Your task to perform on an android device: turn pop-ups off in chrome Image 0: 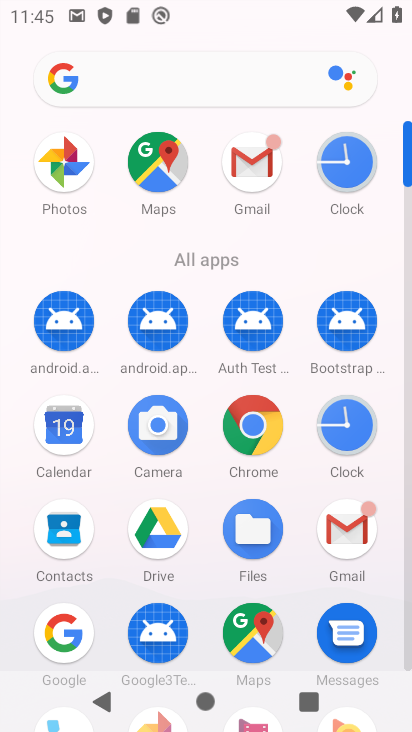
Step 0: click (238, 434)
Your task to perform on an android device: turn pop-ups off in chrome Image 1: 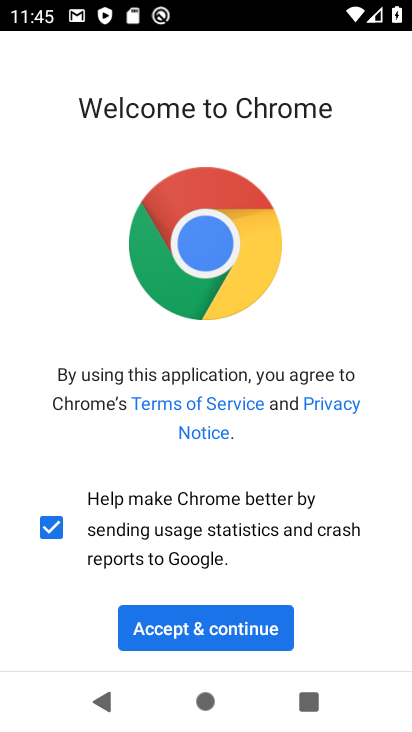
Step 1: click (226, 627)
Your task to perform on an android device: turn pop-ups off in chrome Image 2: 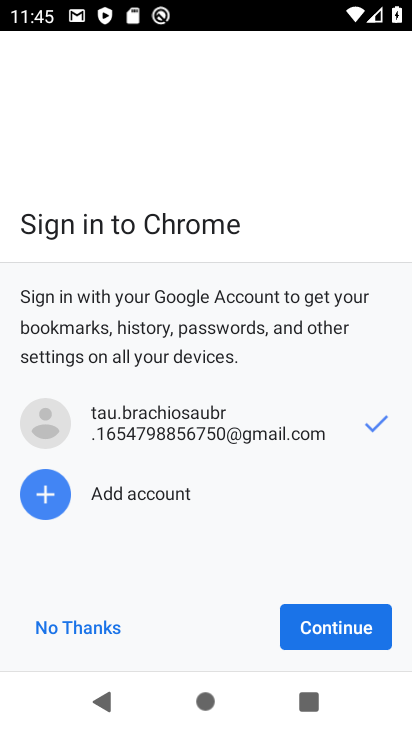
Step 2: click (329, 620)
Your task to perform on an android device: turn pop-ups off in chrome Image 3: 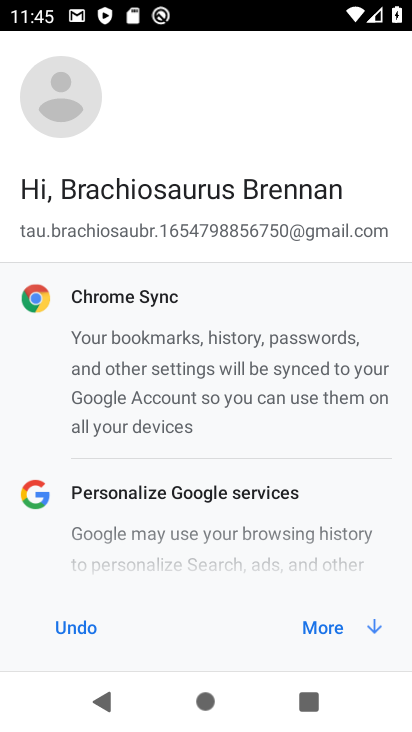
Step 3: click (328, 620)
Your task to perform on an android device: turn pop-ups off in chrome Image 4: 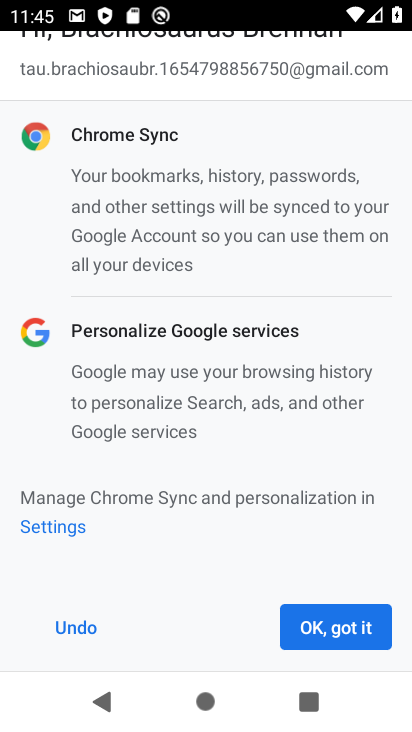
Step 4: click (328, 619)
Your task to perform on an android device: turn pop-ups off in chrome Image 5: 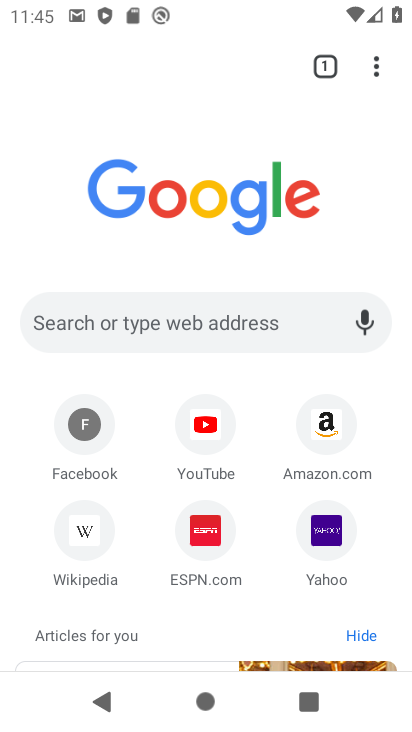
Step 5: drag from (376, 66) to (202, 557)
Your task to perform on an android device: turn pop-ups off in chrome Image 6: 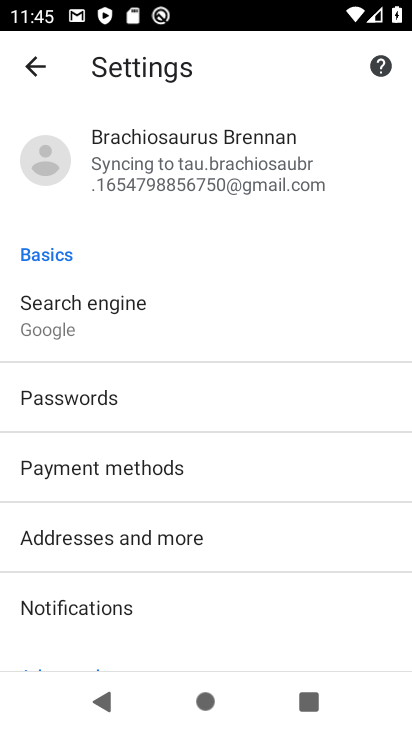
Step 6: drag from (165, 615) to (255, 314)
Your task to perform on an android device: turn pop-ups off in chrome Image 7: 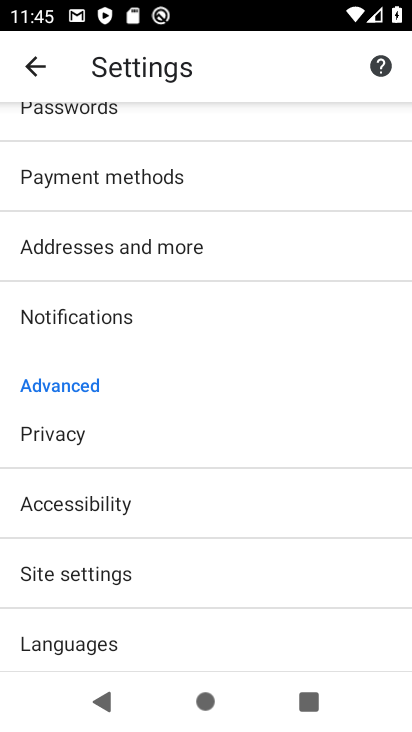
Step 7: click (108, 582)
Your task to perform on an android device: turn pop-ups off in chrome Image 8: 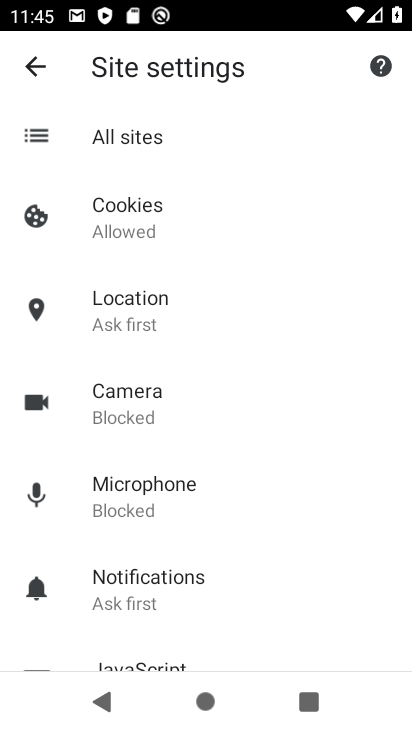
Step 8: drag from (244, 576) to (297, 225)
Your task to perform on an android device: turn pop-ups off in chrome Image 9: 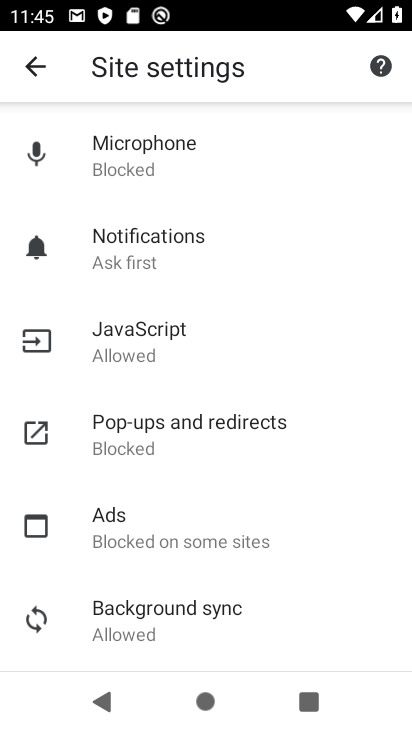
Step 9: click (153, 430)
Your task to perform on an android device: turn pop-ups off in chrome Image 10: 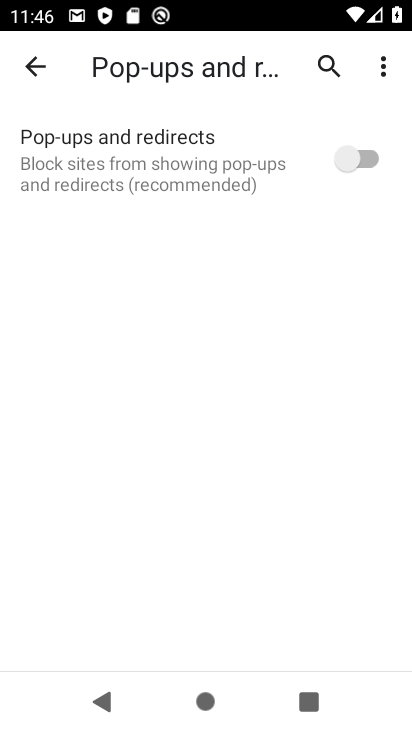
Step 10: task complete